Your task to perform on an android device: Open Reddit.com Image 0: 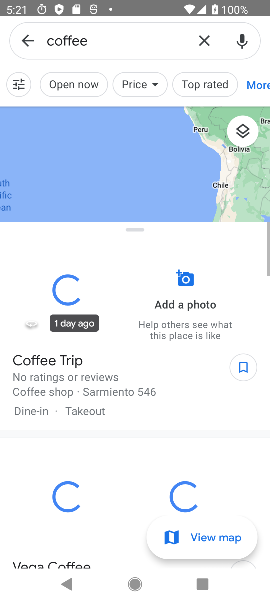
Step 0: press back button
Your task to perform on an android device: Open Reddit.com Image 1: 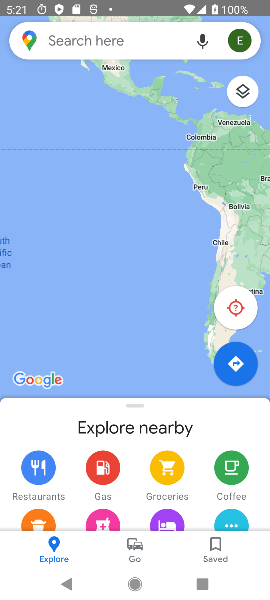
Step 1: press home button
Your task to perform on an android device: Open Reddit.com Image 2: 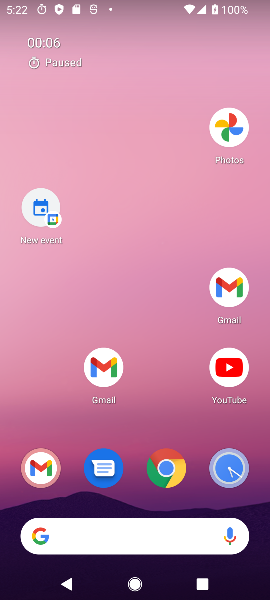
Step 2: click (142, 266)
Your task to perform on an android device: Open Reddit.com Image 3: 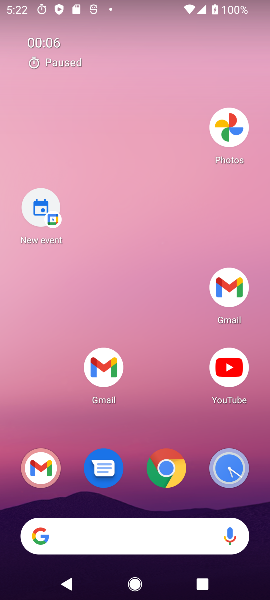
Step 3: drag from (183, 506) to (146, 235)
Your task to perform on an android device: Open Reddit.com Image 4: 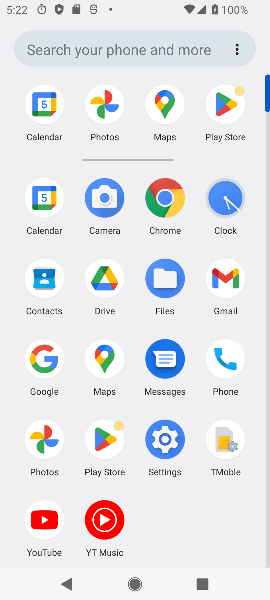
Step 4: drag from (166, 572) to (147, 180)
Your task to perform on an android device: Open Reddit.com Image 5: 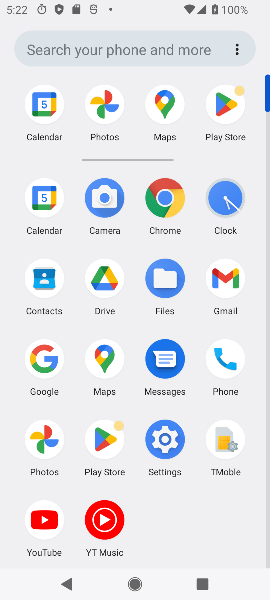
Step 5: drag from (170, 438) to (170, 185)
Your task to perform on an android device: Open Reddit.com Image 6: 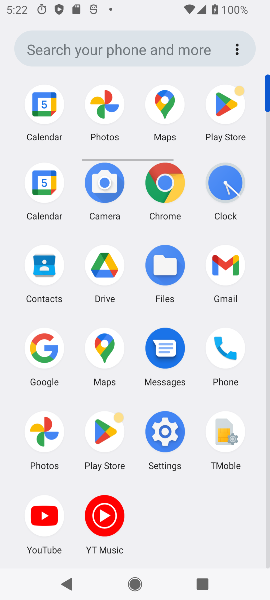
Step 6: click (164, 60)
Your task to perform on an android device: Open Reddit.com Image 7: 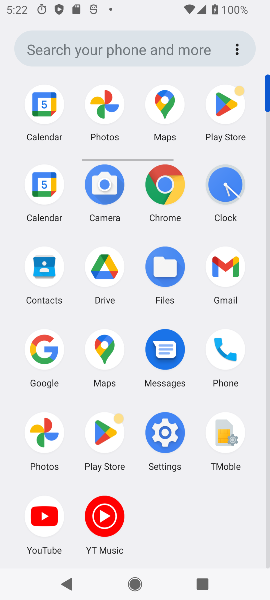
Step 7: drag from (120, 0) to (109, 73)
Your task to perform on an android device: Open Reddit.com Image 8: 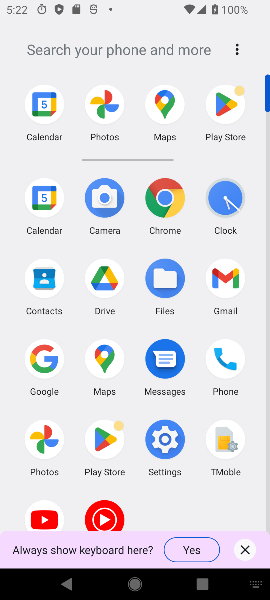
Step 8: click (160, 197)
Your task to perform on an android device: Open Reddit.com Image 9: 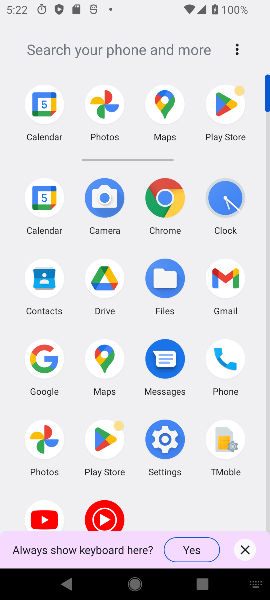
Step 9: click (160, 197)
Your task to perform on an android device: Open Reddit.com Image 10: 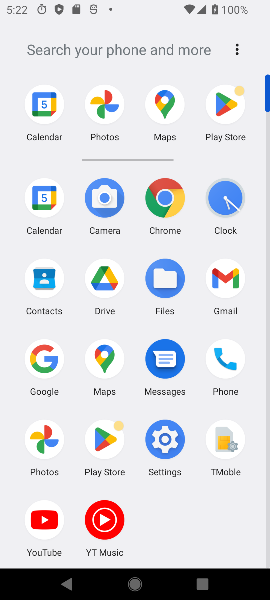
Step 10: click (160, 197)
Your task to perform on an android device: Open Reddit.com Image 11: 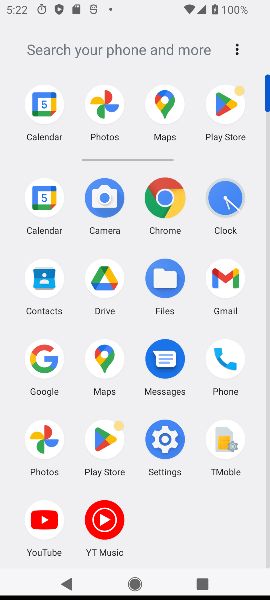
Step 11: click (160, 197)
Your task to perform on an android device: Open Reddit.com Image 12: 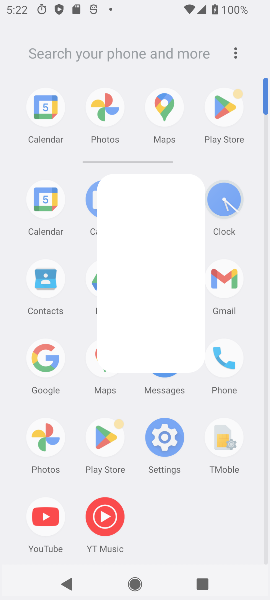
Step 12: click (160, 197)
Your task to perform on an android device: Open Reddit.com Image 13: 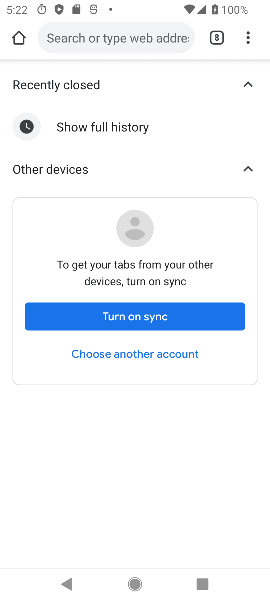
Step 13: press back button
Your task to perform on an android device: Open Reddit.com Image 14: 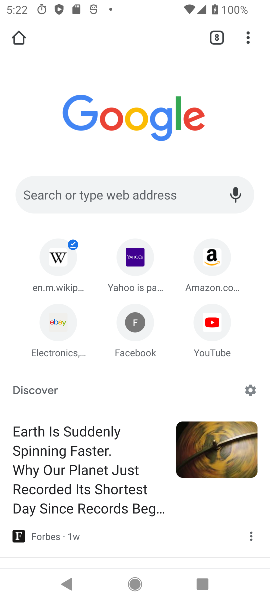
Step 14: drag from (246, 38) to (129, 123)
Your task to perform on an android device: Open Reddit.com Image 15: 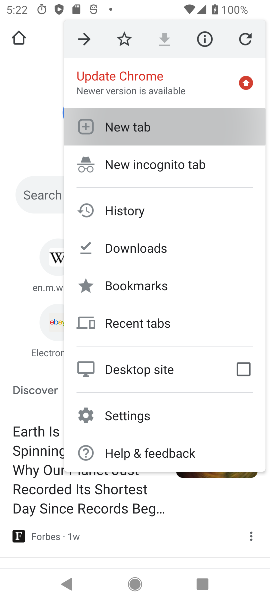
Step 15: click (128, 124)
Your task to perform on an android device: Open Reddit.com Image 16: 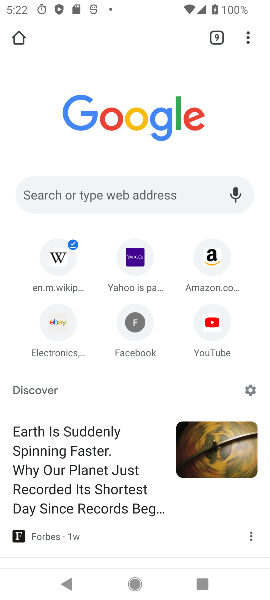
Step 16: click (48, 187)
Your task to perform on an android device: Open Reddit.com Image 17: 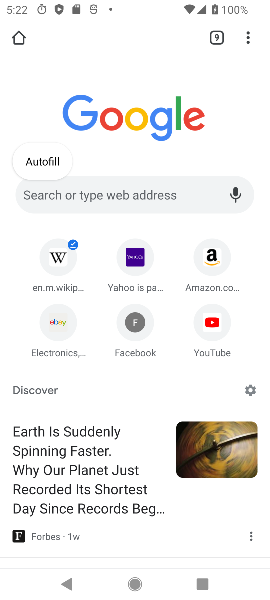
Step 17: type "reddit"
Your task to perform on an android device: Open Reddit.com Image 18: 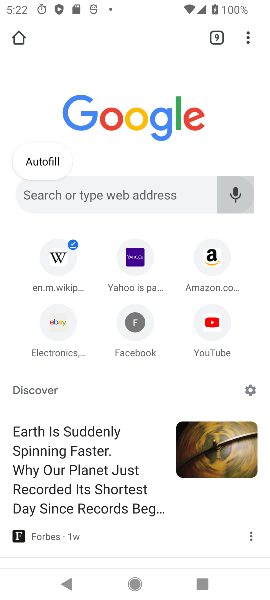
Step 18: click (67, 192)
Your task to perform on an android device: Open Reddit.com Image 19: 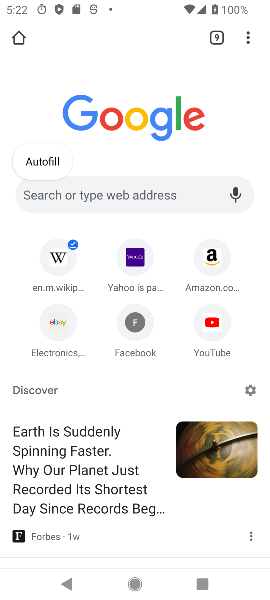
Step 19: click (65, 191)
Your task to perform on an android device: Open Reddit.com Image 20: 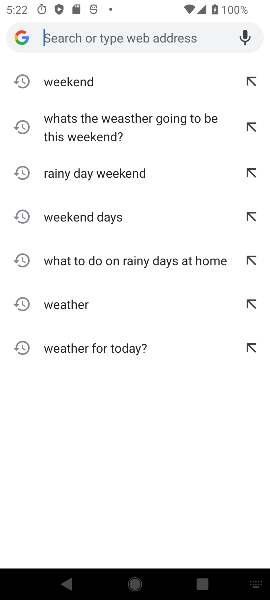
Step 20: type "reddit"
Your task to perform on an android device: Open Reddit.com Image 21: 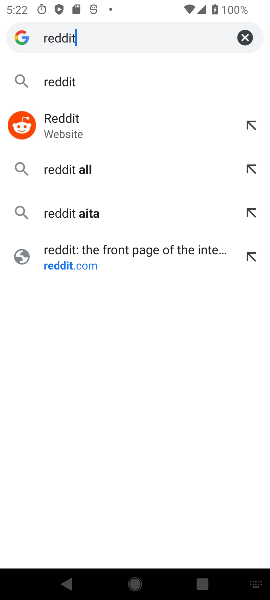
Step 21: click (59, 74)
Your task to perform on an android device: Open Reddit.com Image 22: 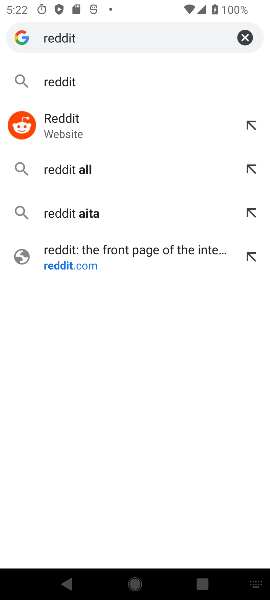
Step 22: click (57, 112)
Your task to perform on an android device: Open Reddit.com Image 23: 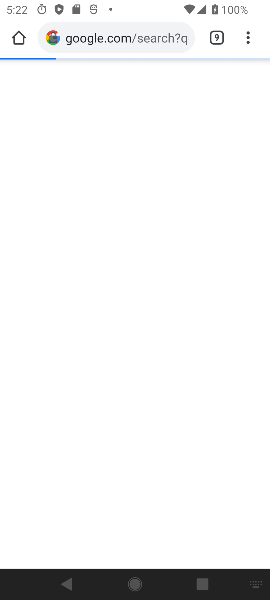
Step 23: click (58, 113)
Your task to perform on an android device: Open Reddit.com Image 24: 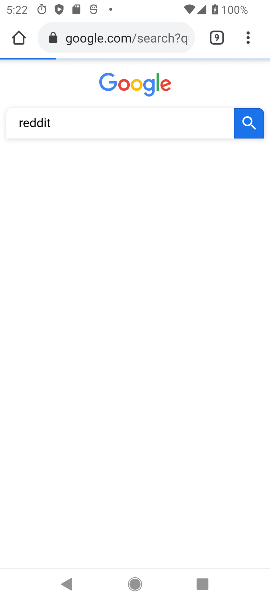
Step 24: click (59, 113)
Your task to perform on an android device: Open Reddit.com Image 25: 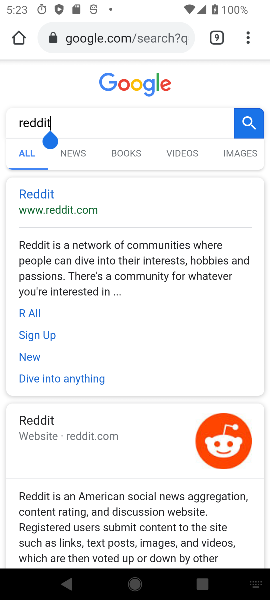
Step 25: task complete